Your task to perform on an android device: Find coffee shops on Maps Image 0: 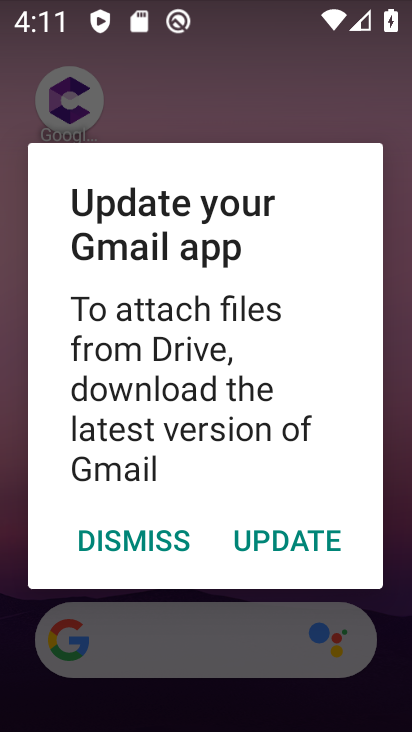
Step 0: press home button
Your task to perform on an android device: Find coffee shops on Maps Image 1: 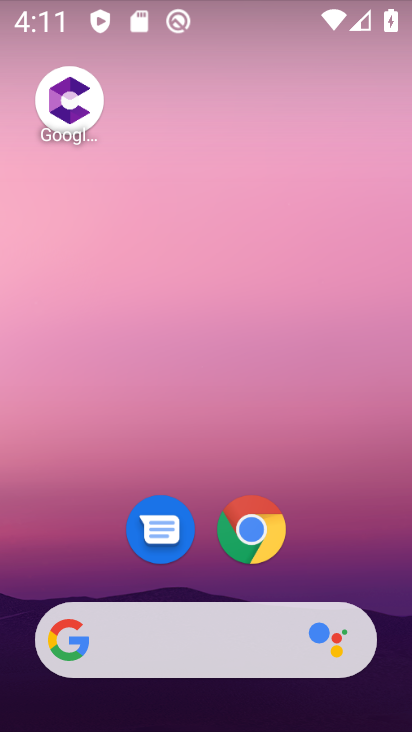
Step 1: drag from (209, 570) to (211, 186)
Your task to perform on an android device: Find coffee shops on Maps Image 2: 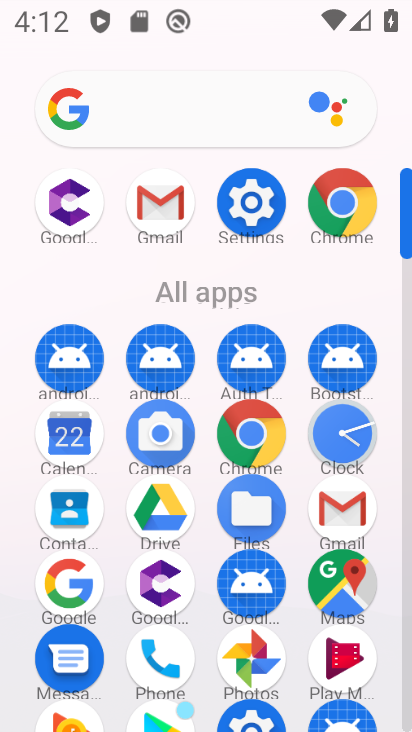
Step 2: click (341, 579)
Your task to perform on an android device: Find coffee shops on Maps Image 3: 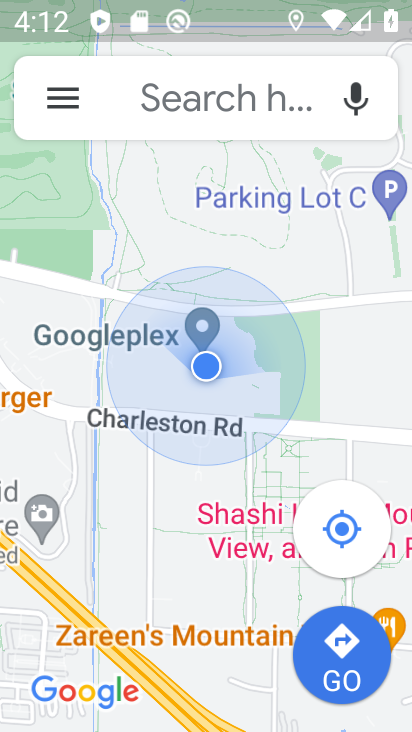
Step 3: click (183, 95)
Your task to perform on an android device: Find coffee shops on Maps Image 4: 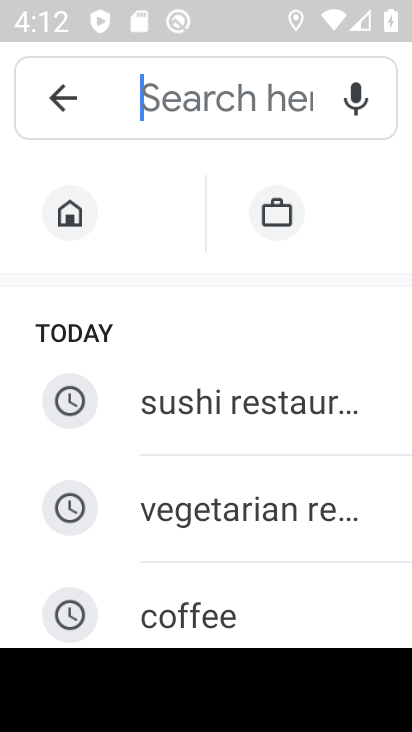
Step 4: click (209, 583)
Your task to perform on an android device: Find coffee shops on Maps Image 5: 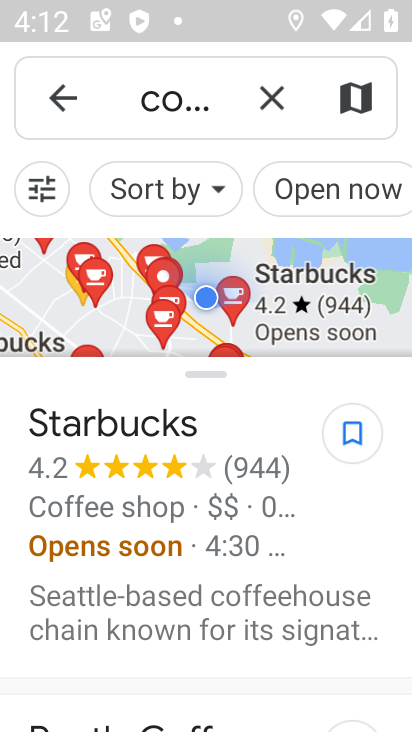
Step 5: task complete